Your task to perform on an android device: change the clock display to analog Image 0: 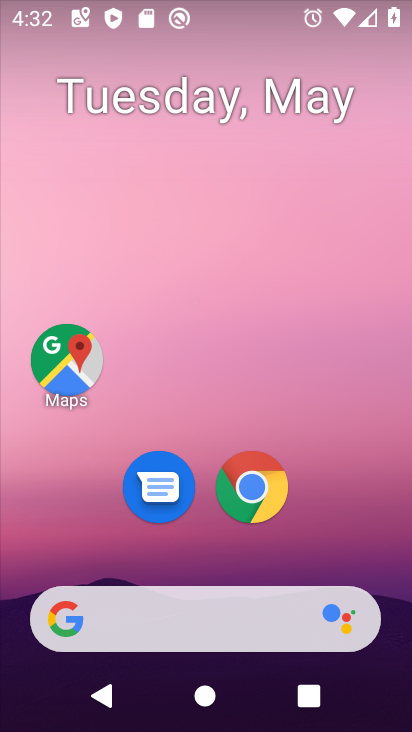
Step 0: drag from (316, 500) to (352, 81)
Your task to perform on an android device: change the clock display to analog Image 1: 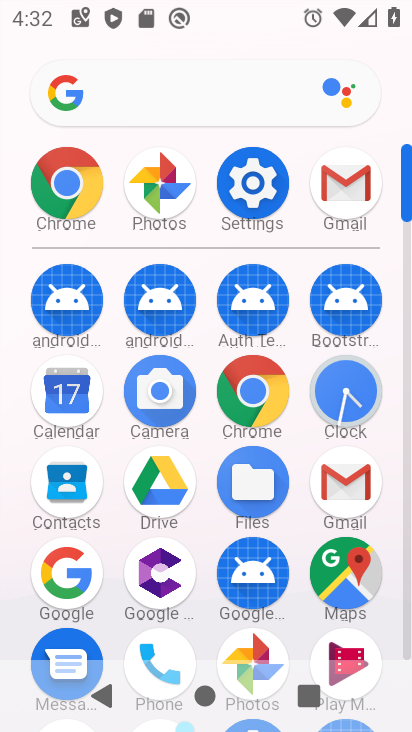
Step 1: click (330, 384)
Your task to perform on an android device: change the clock display to analog Image 2: 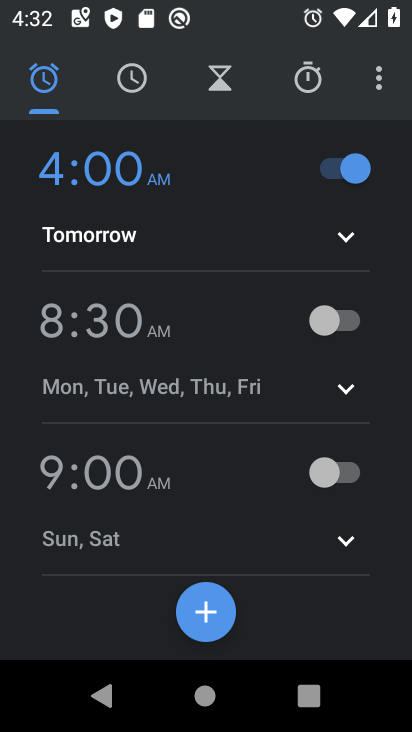
Step 2: click (378, 85)
Your task to perform on an android device: change the clock display to analog Image 3: 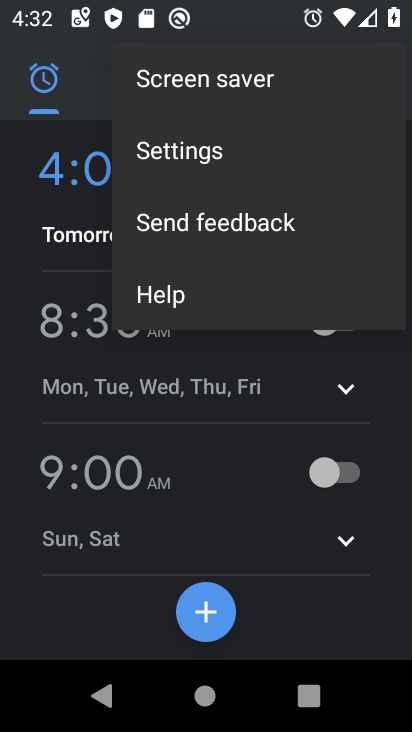
Step 3: click (234, 152)
Your task to perform on an android device: change the clock display to analog Image 4: 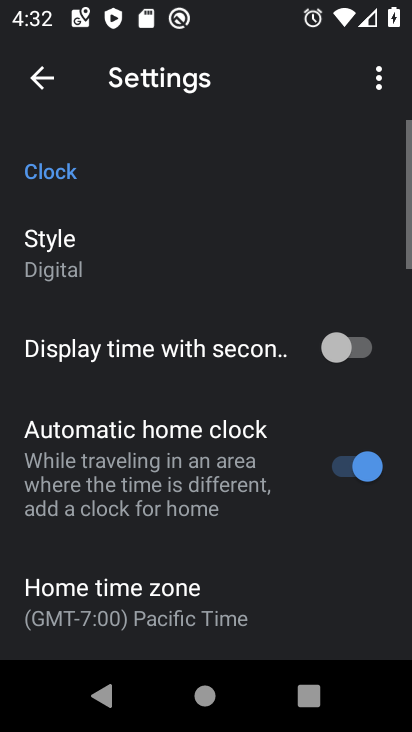
Step 4: click (65, 258)
Your task to perform on an android device: change the clock display to analog Image 5: 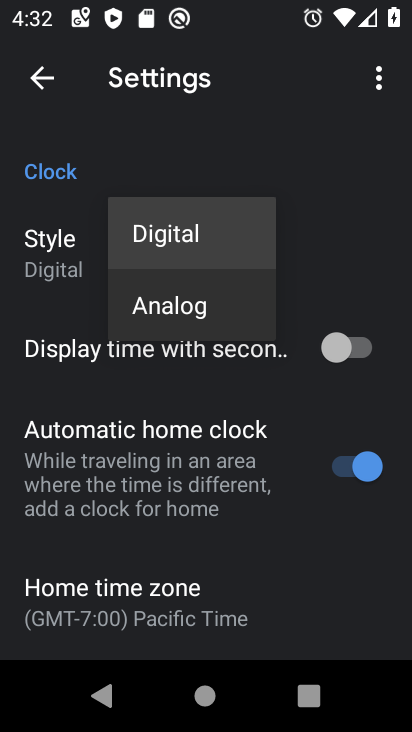
Step 5: click (177, 304)
Your task to perform on an android device: change the clock display to analog Image 6: 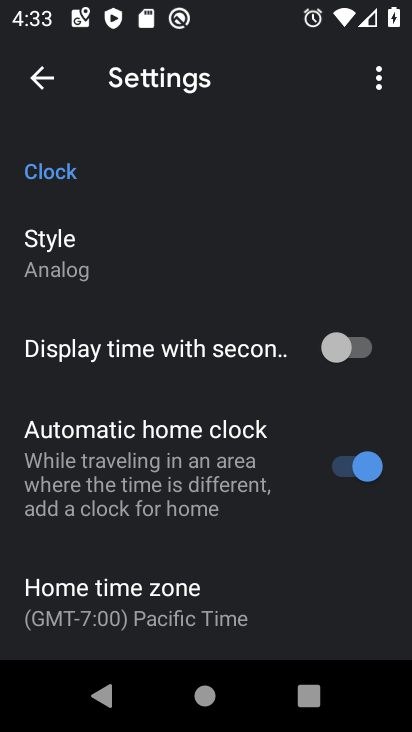
Step 6: task complete